Your task to perform on an android device: Open privacy settings Image 0: 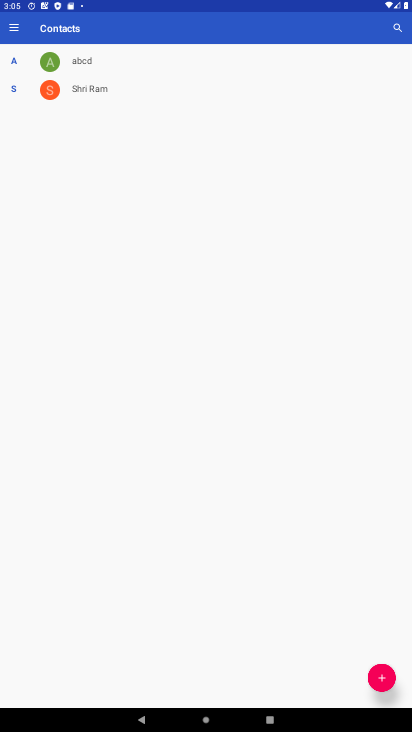
Step 0: press home button
Your task to perform on an android device: Open privacy settings Image 1: 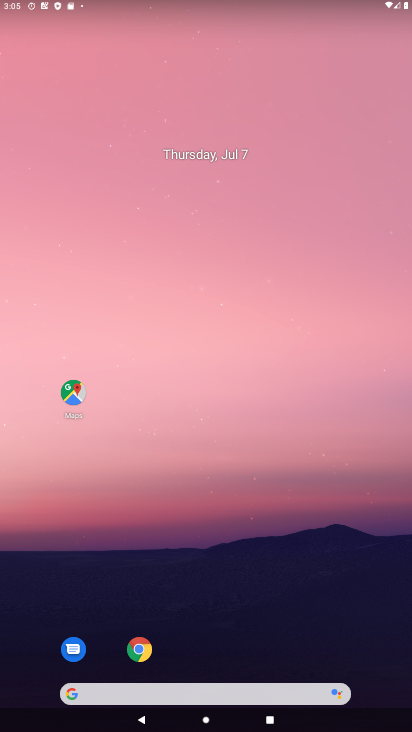
Step 1: drag from (199, 699) to (199, 9)
Your task to perform on an android device: Open privacy settings Image 2: 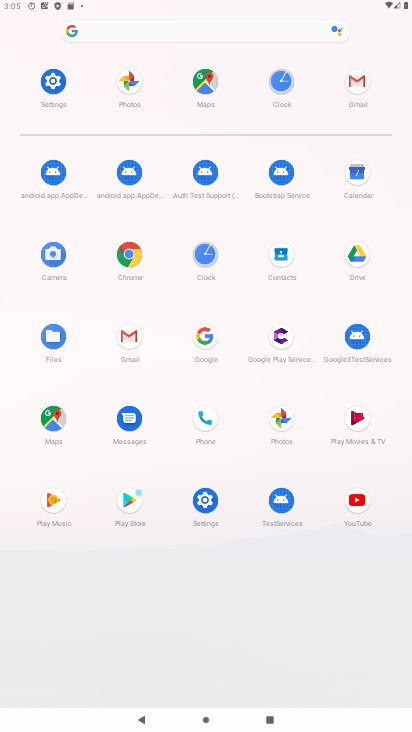
Step 2: click (53, 89)
Your task to perform on an android device: Open privacy settings Image 3: 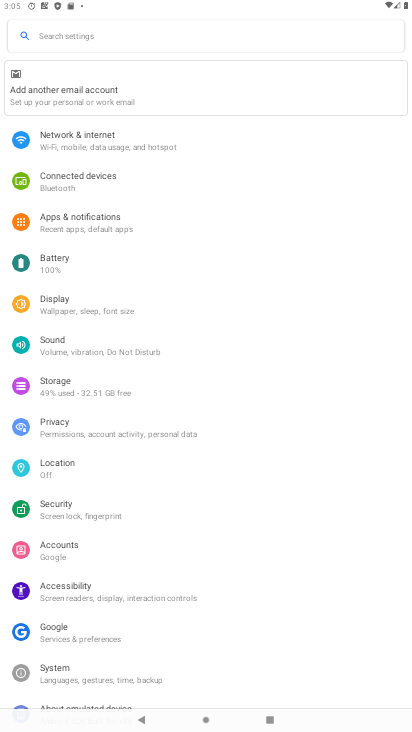
Step 3: click (83, 434)
Your task to perform on an android device: Open privacy settings Image 4: 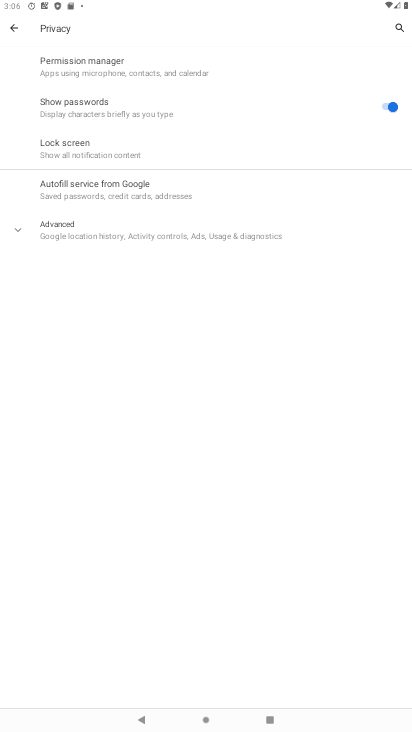
Step 4: press back button
Your task to perform on an android device: Open privacy settings Image 5: 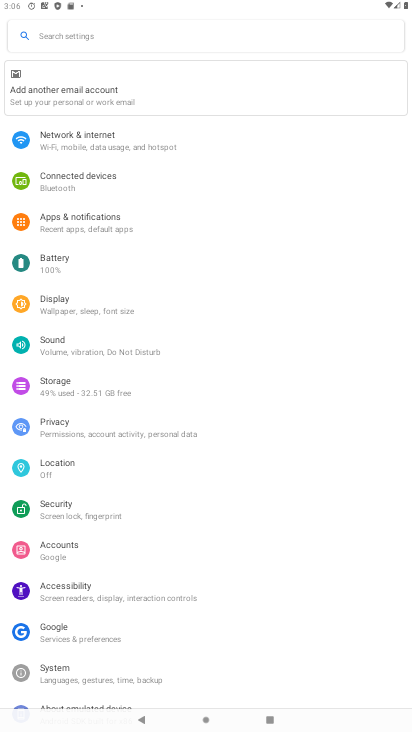
Step 5: click (79, 427)
Your task to perform on an android device: Open privacy settings Image 6: 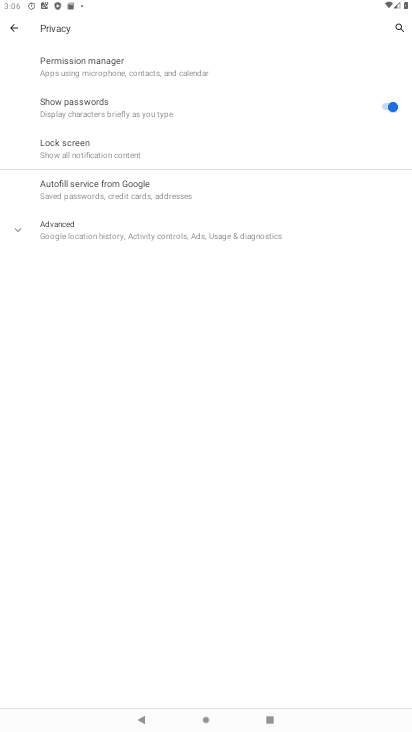
Step 6: task complete